Your task to perform on an android device: change the clock display to analog Image 0: 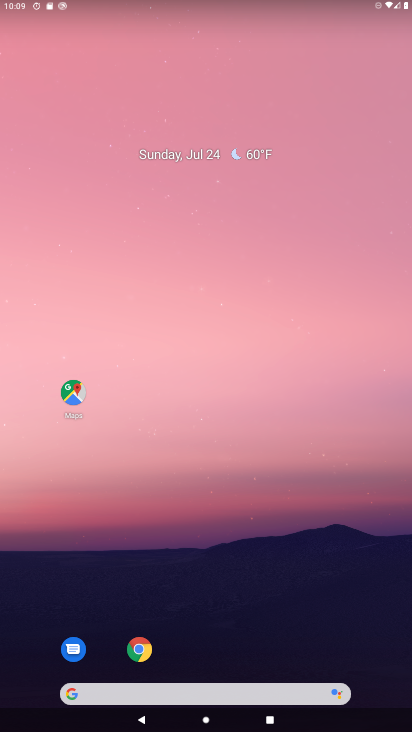
Step 0: drag from (293, 565) to (236, 0)
Your task to perform on an android device: change the clock display to analog Image 1: 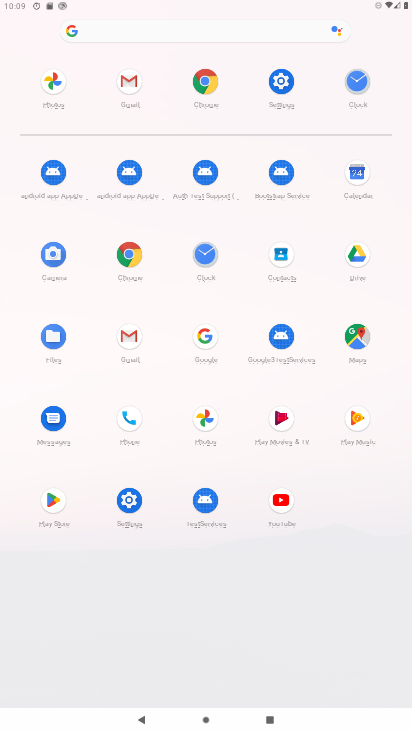
Step 1: click (207, 260)
Your task to perform on an android device: change the clock display to analog Image 2: 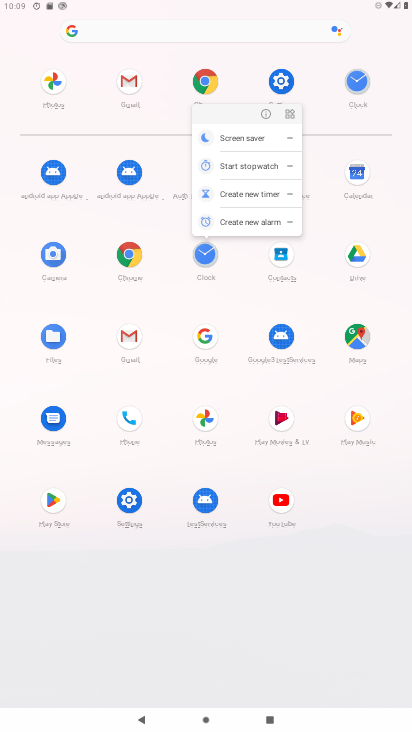
Step 2: click (199, 258)
Your task to perform on an android device: change the clock display to analog Image 3: 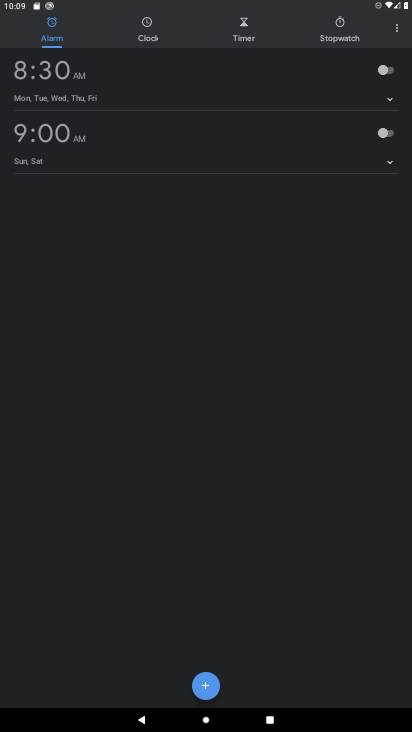
Step 3: click (398, 34)
Your task to perform on an android device: change the clock display to analog Image 4: 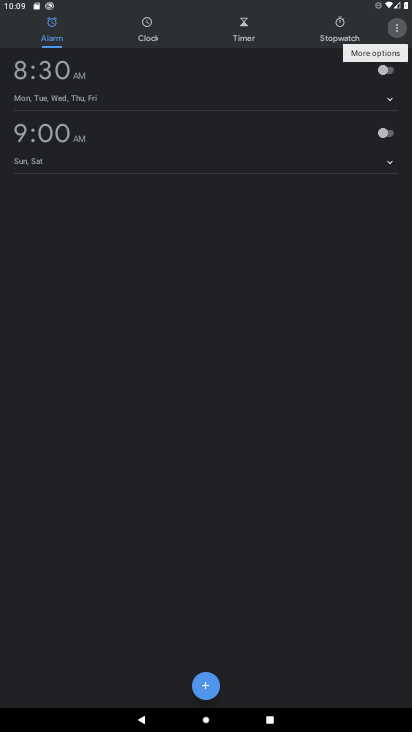
Step 4: click (398, 34)
Your task to perform on an android device: change the clock display to analog Image 5: 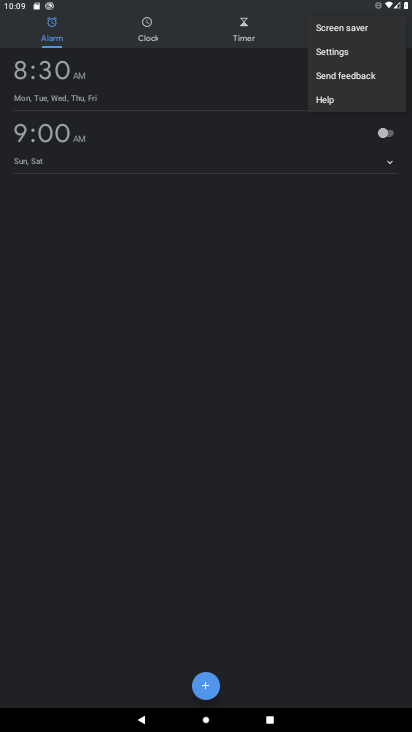
Step 5: click (337, 56)
Your task to perform on an android device: change the clock display to analog Image 6: 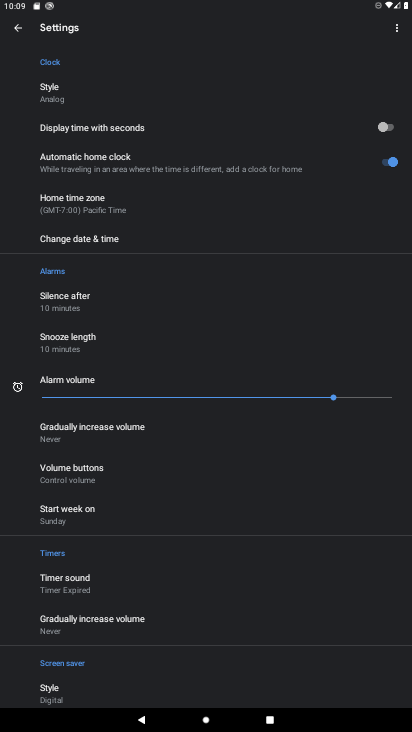
Step 6: task complete